Your task to perform on an android device: Turn off the flashlight Image 0: 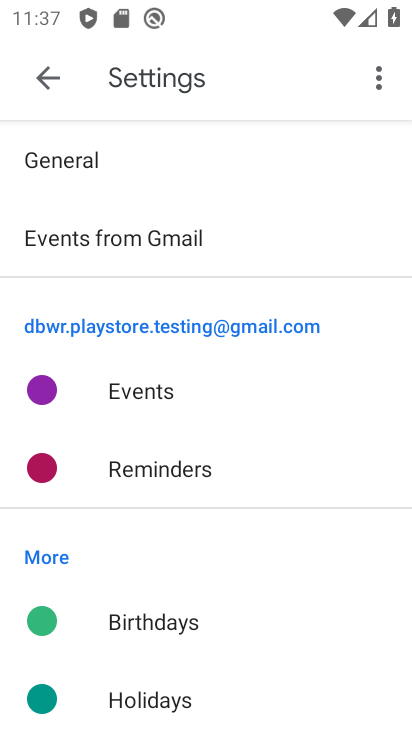
Step 0: press home button
Your task to perform on an android device: Turn off the flashlight Image 1: 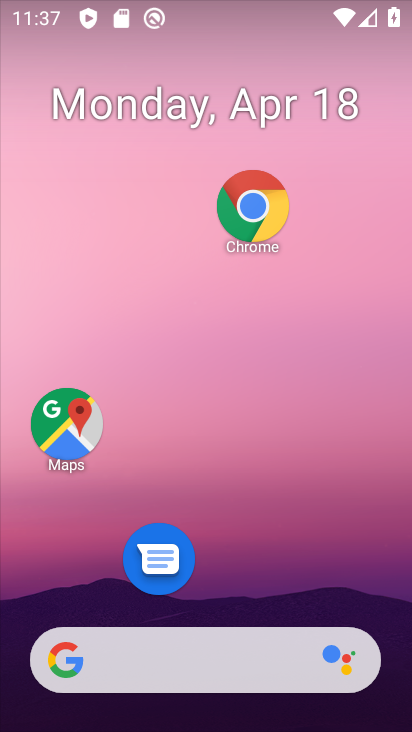
Step 1: drag from (233, 642) to (239, 136)
Your task to perform on an android device: Turn off the flashlight Image 2: 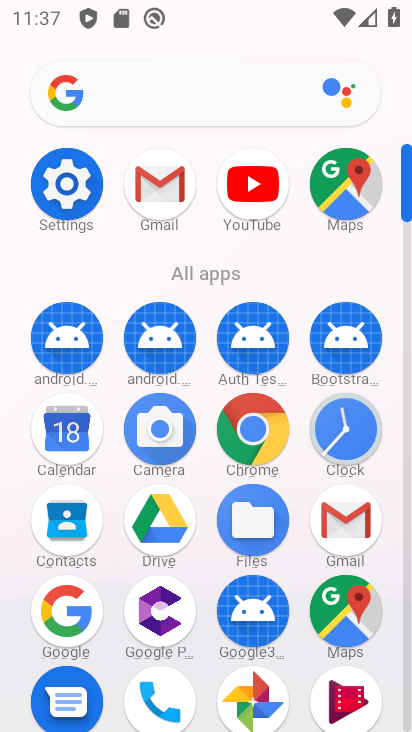
Step 2: drag from (201, 634) to (209, 213)
Your task to perform on an android device: Turn off the flashlight Image 3: 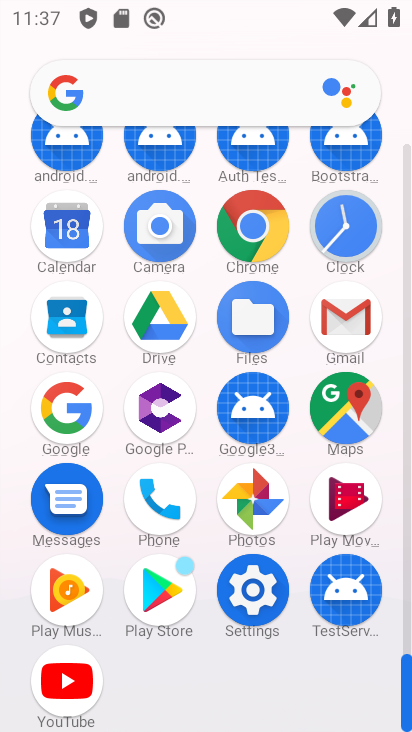
Step 3: click (256, 585)
Your task to perform on an android device: Turn off the flashlight Image 4: 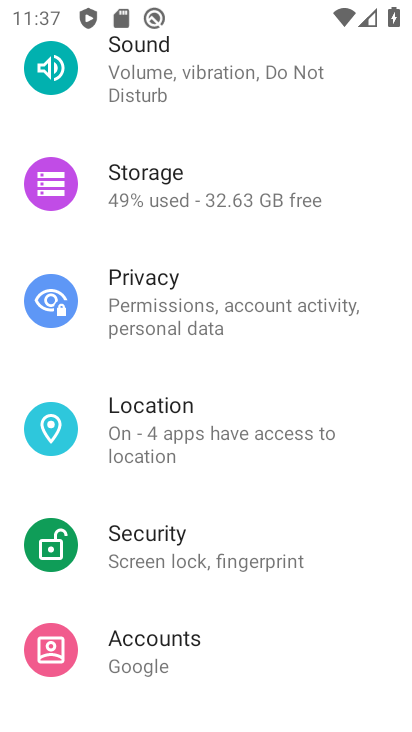
Step 4: task complete